Your task to perform on an android device: toggle priority inbox in the gmail app Image 0: 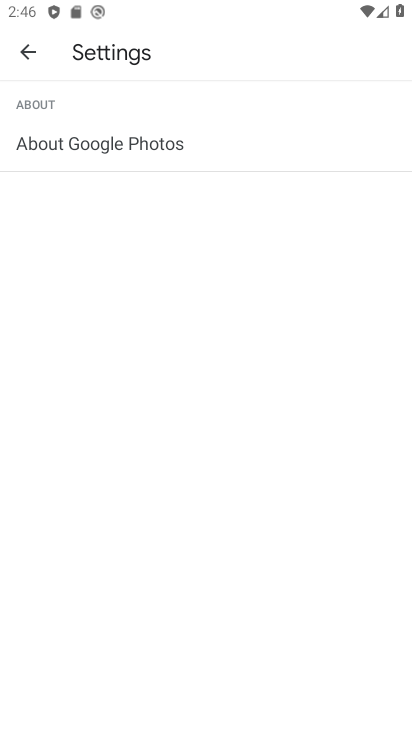
Step 0: press home button
Your task to perform on an android device: toggle priority inbox in the gmail app Image 1: 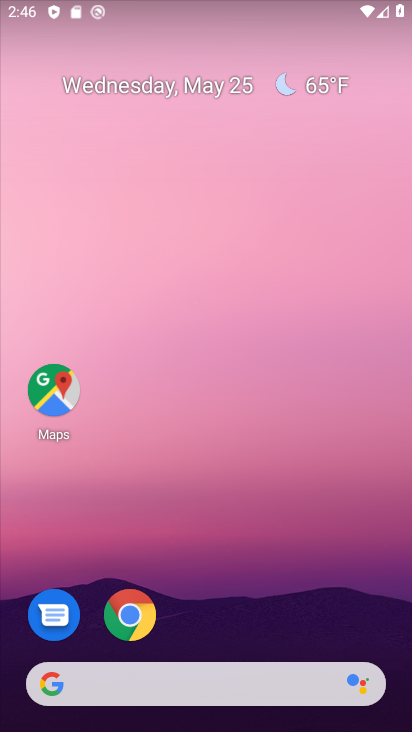
Step 1: drag from (317, 629) to (299, 125)
Your task to perform on an android device: toggle priority inbox in the gmail app Image 2: 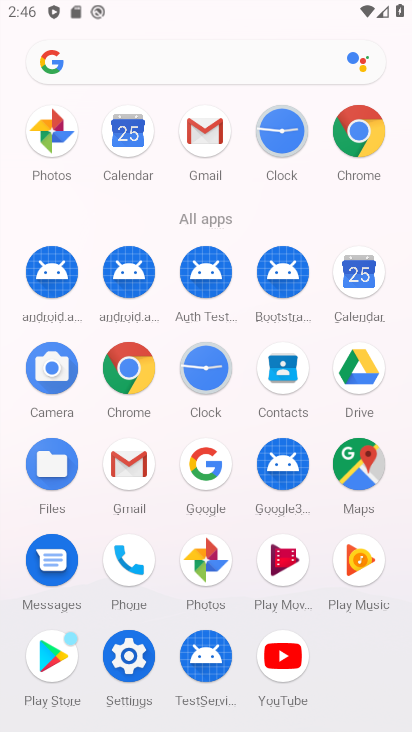
Step 2: click (135, 463)
Your task to perform on an android device: toggle priority inbox in the gmail app Image 3: 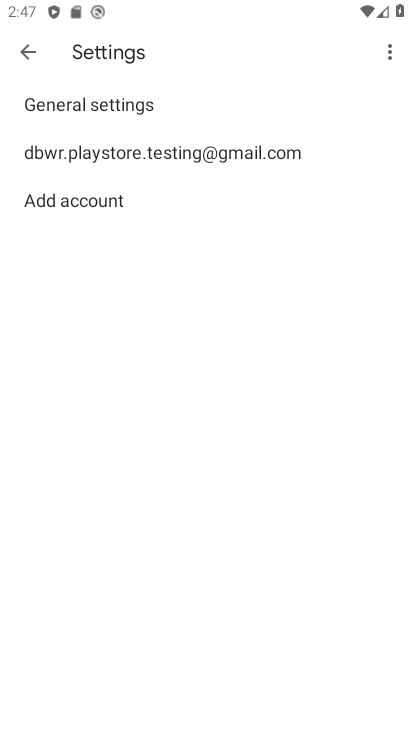
Step 3: click (62, 144)
Your task to perform on an android device: toggle priority inbox in the gmail app Image 4: 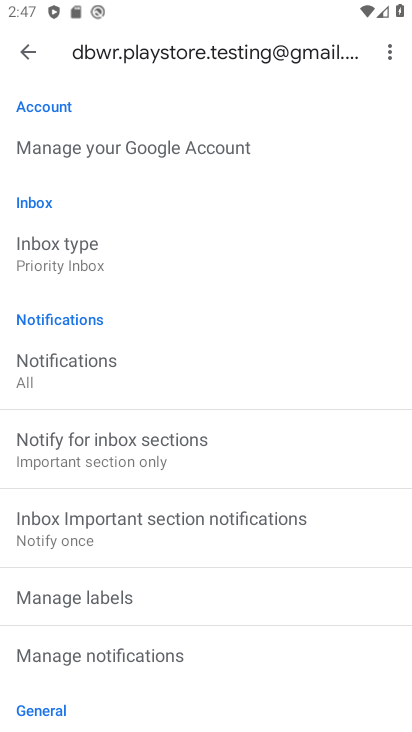
Step 4: click (86, 244)
Your task to perform on an android device: toggle priority inbox in the gmail app Image 5: 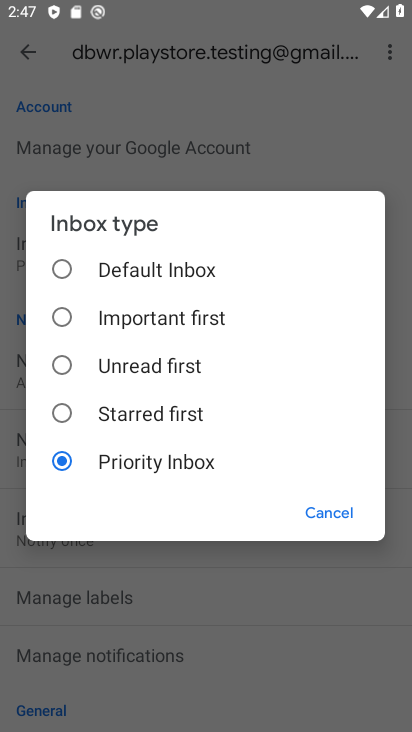
Step 5: click (66, 269)
Your task to perform on an android device: toggle priority inbox in the gmail app Image 6: 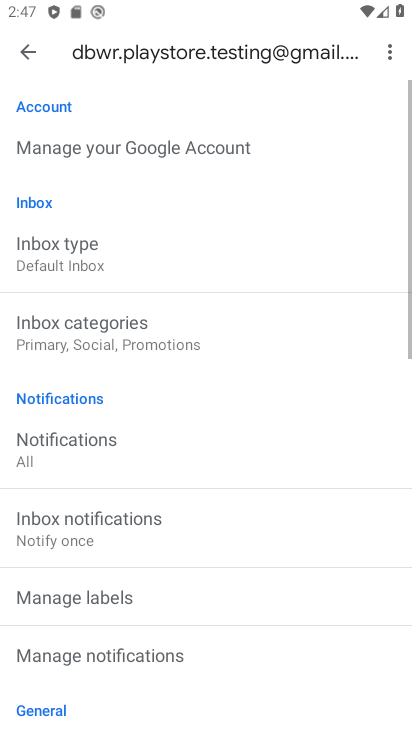
Step 6: task complete